Your task to perform on an android device: Search for Mexican restaurants on Maps Image 0: 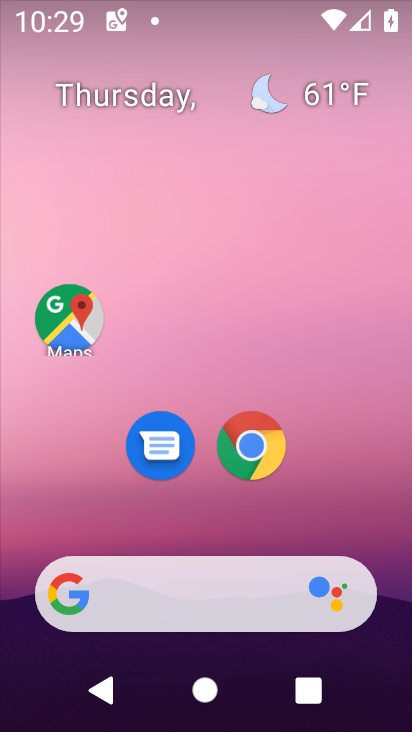
Step 0: click (77, 333)
Your task to perform on an android device: Search for Mexican restaurants on Maps Image 1: 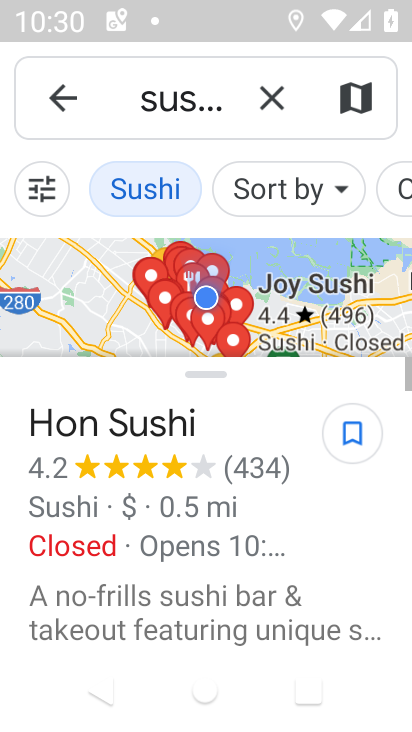
Step 1: click (272, 95)
Your task to perform on an android device: Search for Mexican restaurants on Maps Image 2: 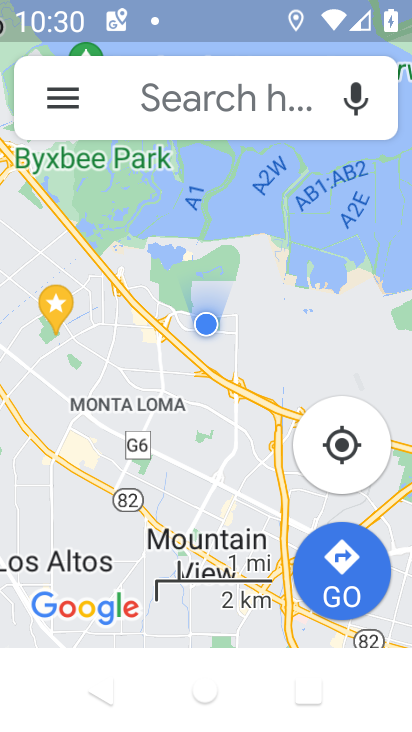
Step 2: click (211, 83)
Your task to perform on an android device: Search for Mexican restaurants on Maps Image 3: 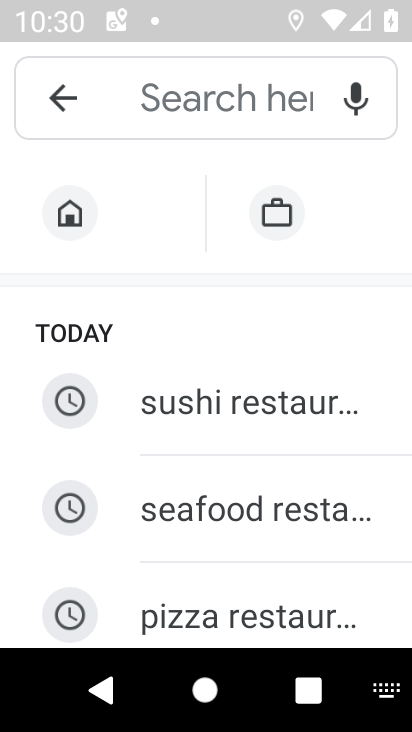
Step 3: type "mexican restaurants"
Your task to perform on an android device: Search for Mexican restaurants on Maps Image 4: 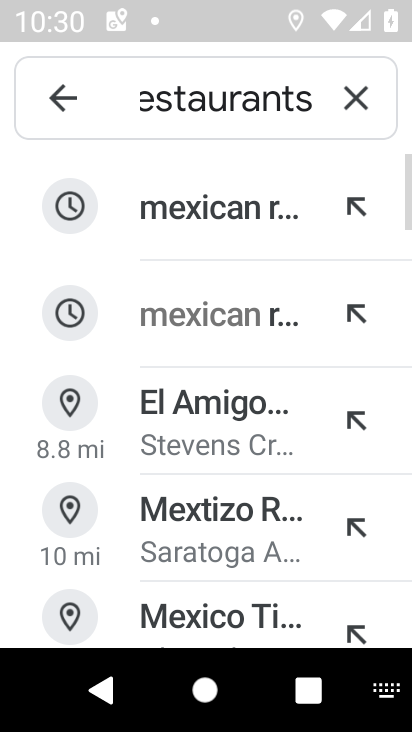
Step 4: click (231, 211)
Your task to perform on an android device: Search for Mexican restaurants on Maps Image 5: 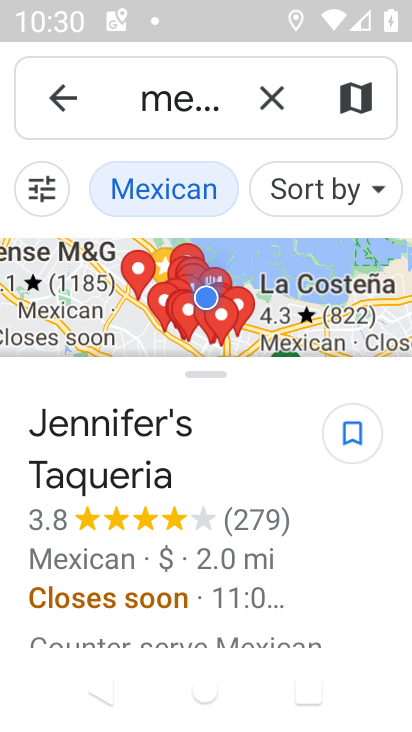
Step 5: task complete